Your task to perform on an android device: Is it going to rain this weekend? Image 0: 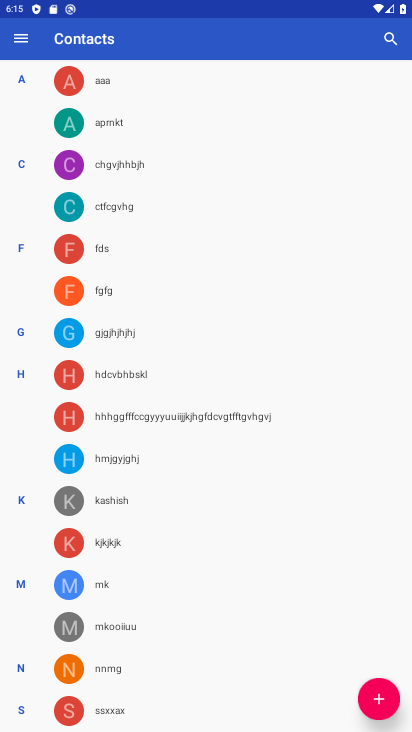
Step 0: press home button
Your task to perform on an android device: Is it going to rain this weekend? Image 1: 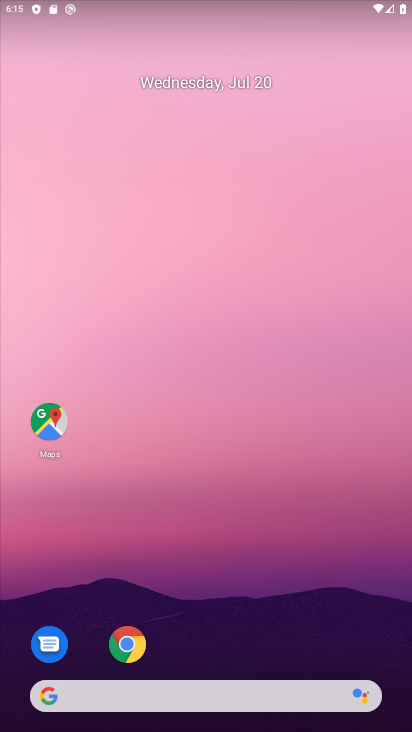
Step 1: click (48, 704)
Your task to perform on an android device: Is it going to rain this weekend? Image 2: 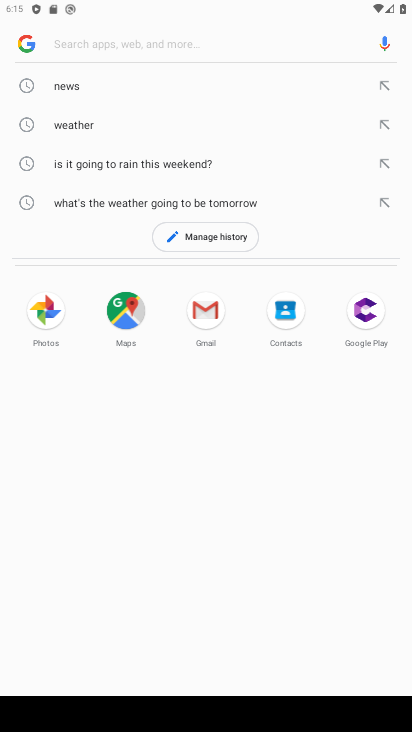
Step 2: click (137, 170)
Your task to perform on an android device: Is it going to rain this weekend? Image 3: 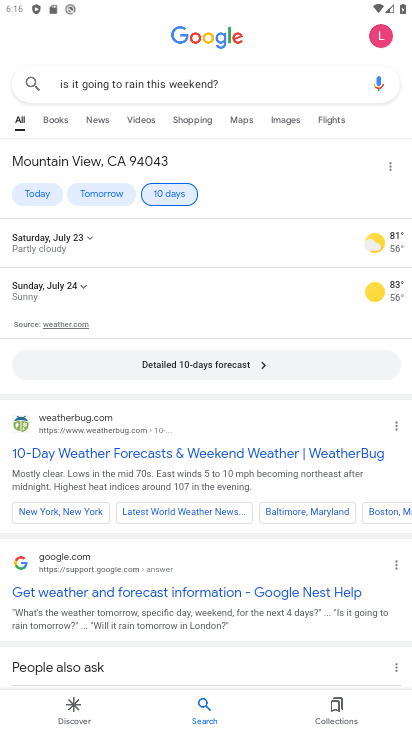
Step 3: task complete